Your task to perform on an android device: What's on my calendar tomorrow? Image 0: 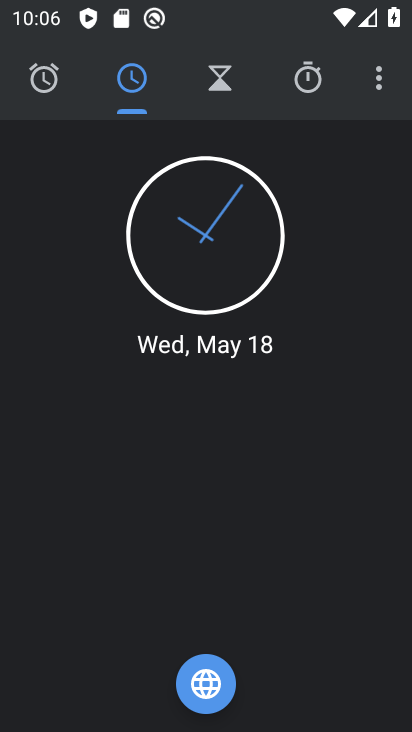
Step 0: press home button
Your task to perform on an android device: What's on my calendar tomorrow? Image 1: 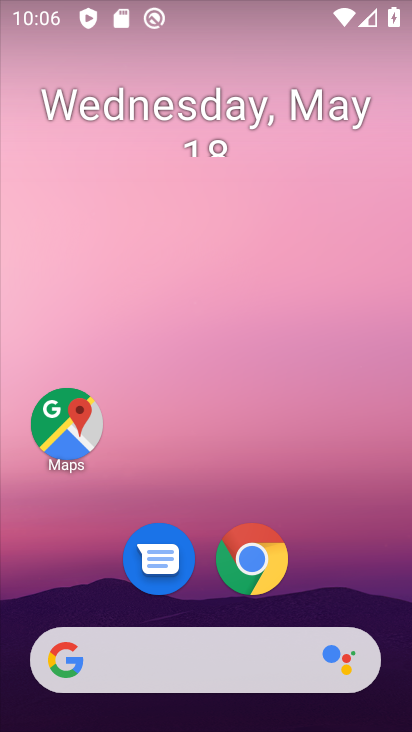
Step 1: drag from (200, 602) to (281, 0)
Your task to perform on an android device: What's on my calendar tomorrow? Image 2: 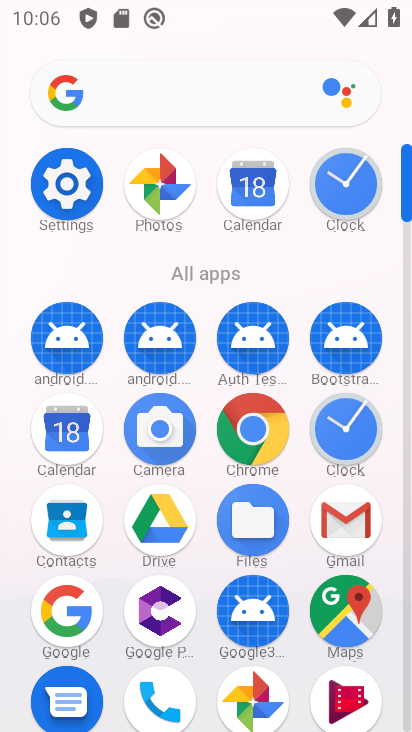
Step 2: click (60, 442)
Your task to perform on an android device: What's on my calendar tomorrow? Image 3: 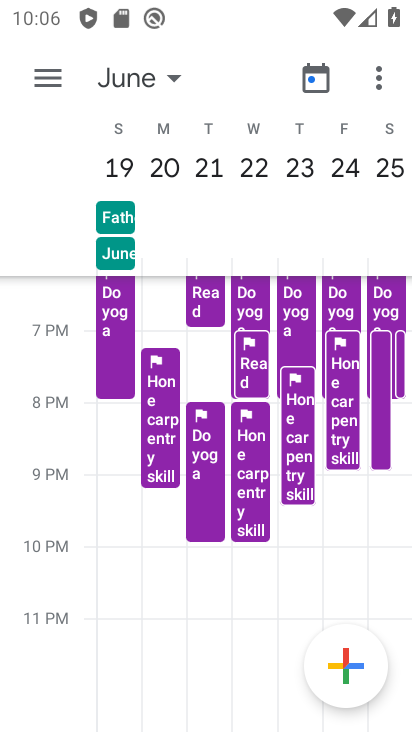
Step 3: drag from (138, 166) to (408, 200)
Your task to perform on an android device: What's on my calendar tomorrow? Image 4: 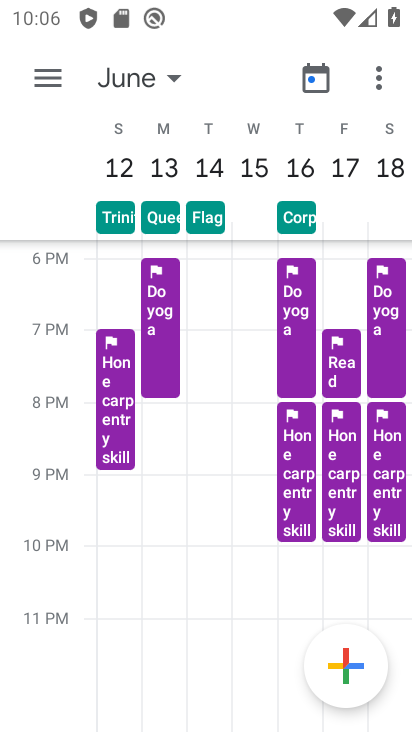
Step 4: drag from (137, 205) to (404, 226)
Your task to perform on an android device: What's on my calendar tomorrow? Image 5: 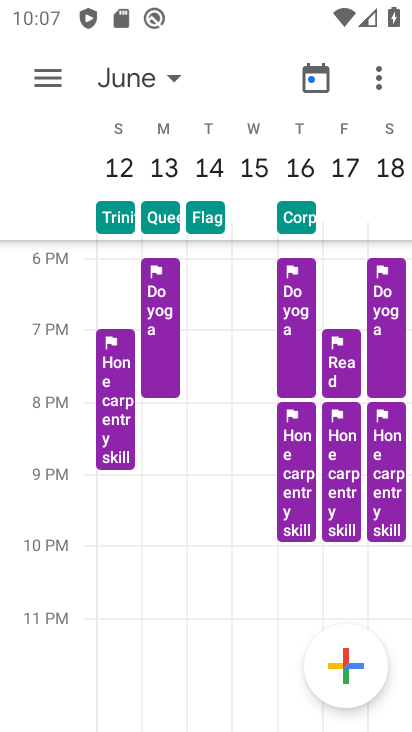
Step 5: drag from (127, 174) to (408, 194)
Your task to perform on an android device: What's on my calendar tomorrow? Image 6: 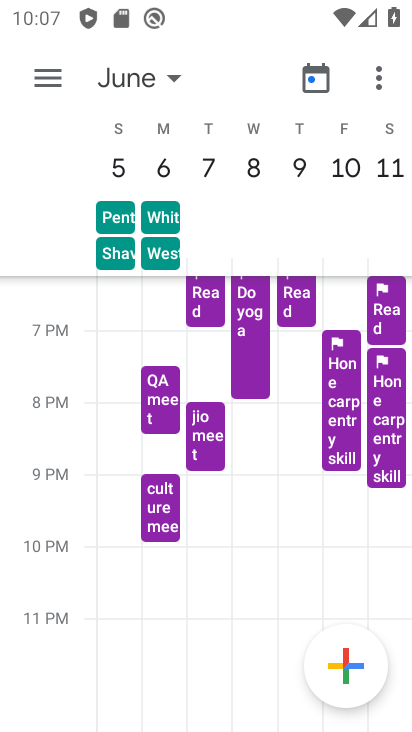
Step 6: drag from (139, 167) to (398, 193)
Your task to perform on an android device: What's on my calendar tomorrow? Image 7: 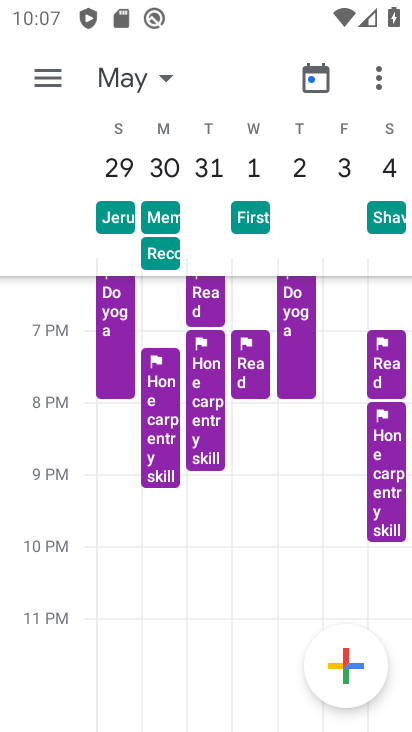
Step 7: drag from (132, 192) to (408, 199)
Your task to perform on an android device: What's on my calendar tomorrow? Image 8: 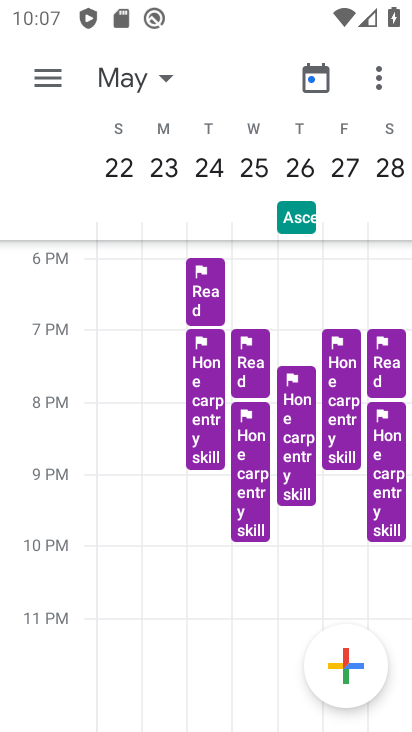
Step 8: drag from (125, 171) to (406, 237)
Your task to perform on an android device: What's on my calendar tomorrow? Image 9: 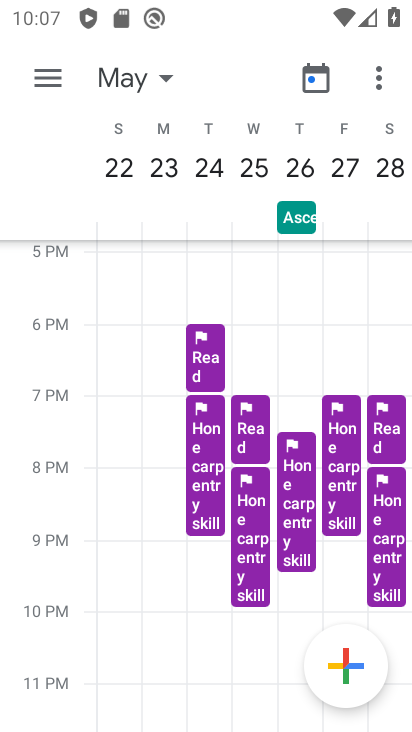
Step 9: drag from (153, 182) to (406, 226)
Your task to perform on an android device: What's on my calendar tomorrow? Image 10: 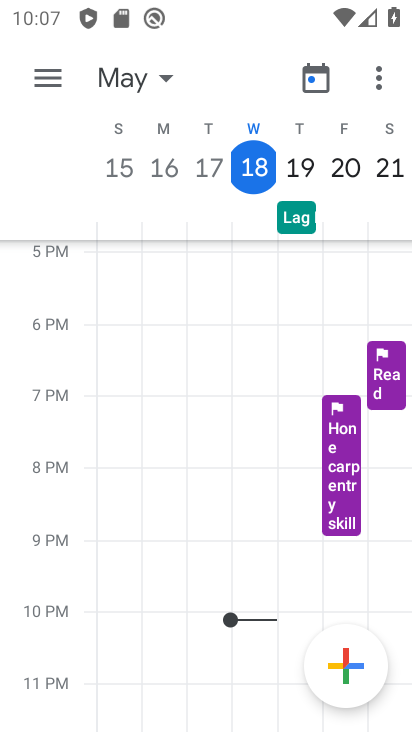
Step 10: click (244, 158)
Your task to perform on an android device: What's on my calendar tomorrow? Image 11: 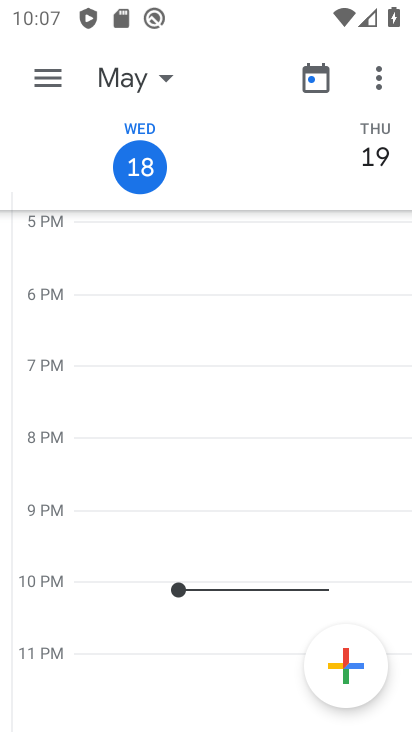
Step 11: click (49, 75)
Your task to perform on an android device: What's on my calendar tomorrow? Image 12: 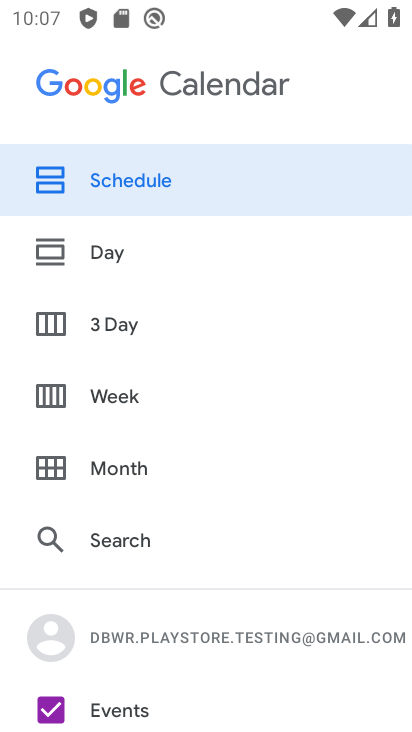
Step 12: click (130, 328)
Your task to perform on an android device: What's on my calendar tomorrow? Image 13: 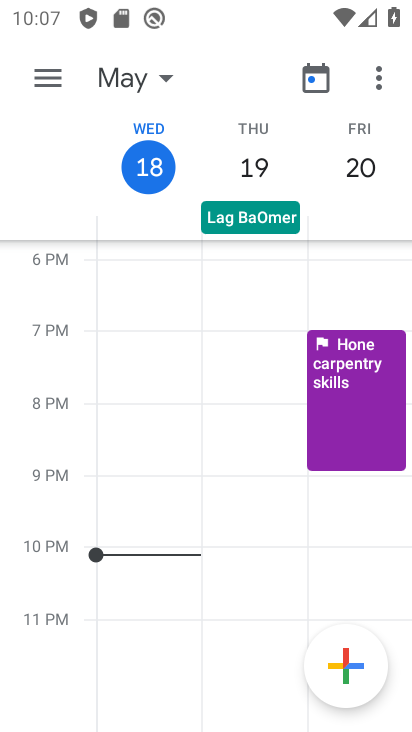
Step 13: task complete